Your task to perform on an android device: turn on sleep mode Image 0: 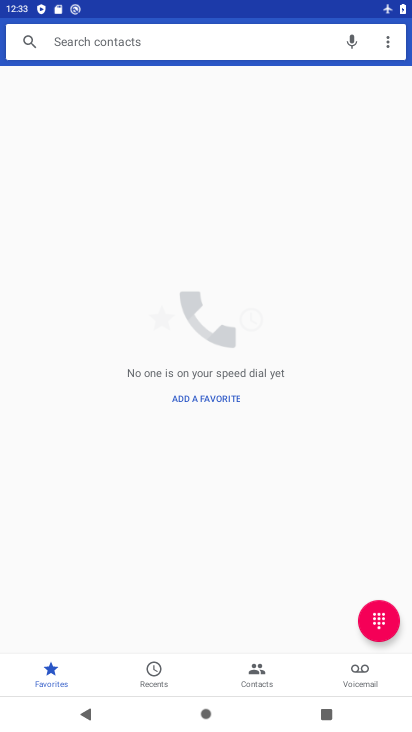
Step 0: press home button
Your task to perform on an android device: turn on sleep mode Image 1: 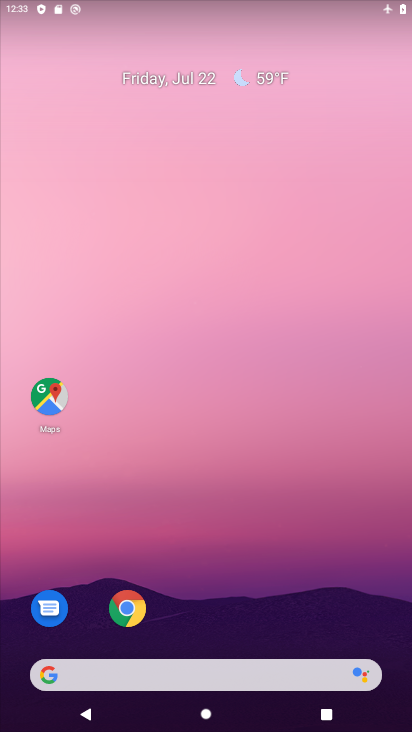
Step 1: drag from (218, 608) to (225, 152)
Your task to perform on an android device: turn on sleep mode Image 2: 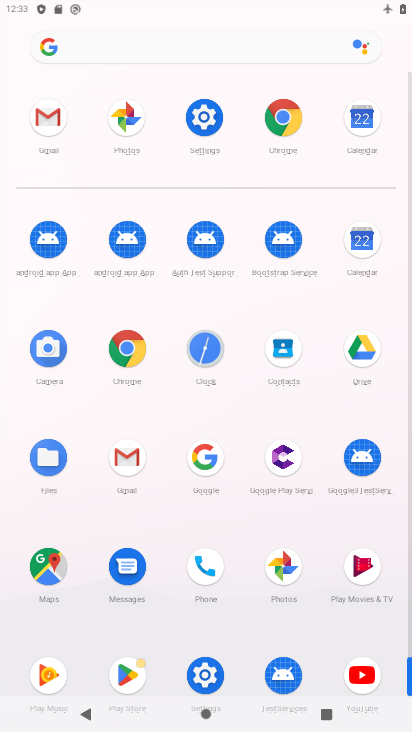
Step 2: click (205, 670)
Your task to perform on an android device: turn on sleep mode Image 3: 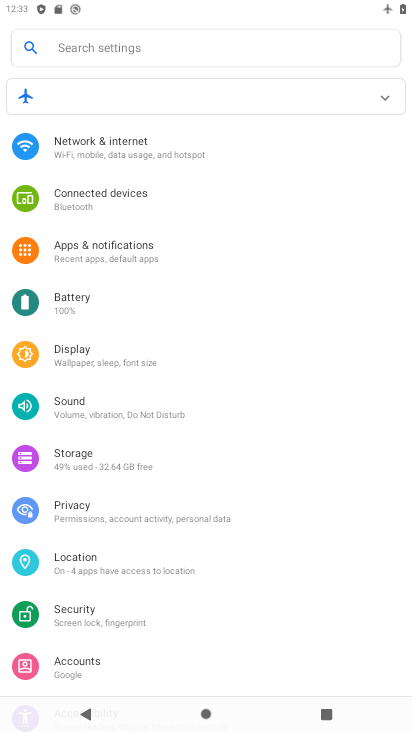
Step 3: click (155, 39)
Your task to perform on an android device: turn on sleep mode Image 4: 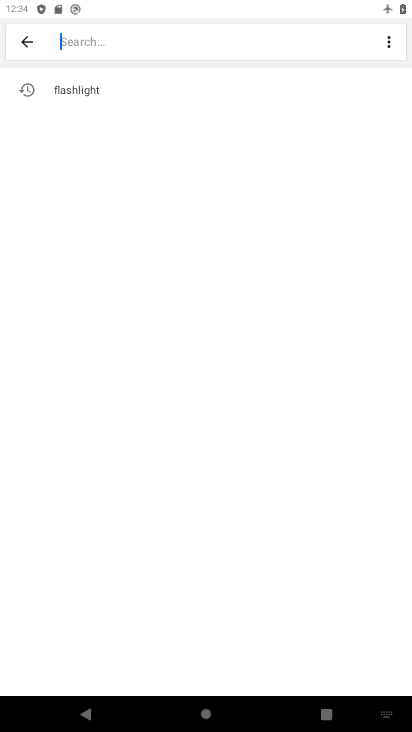
Step 4: type "sleep mode"
Your task to perform on an android device: turn on sleep mode Image 5: 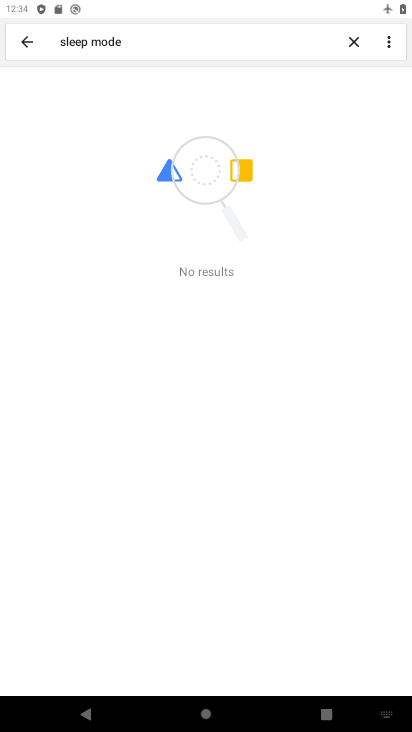
Step 5: task complete